Your task to perform on an android device: toggle sleep mode Image 0: 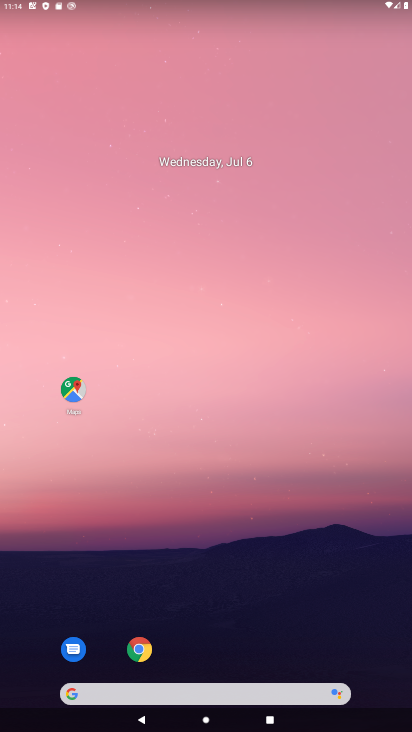
Step 0: drag from (373, 658) to (220, 9)
Your task to perform on an android device: toggle sleep mode Image 1: 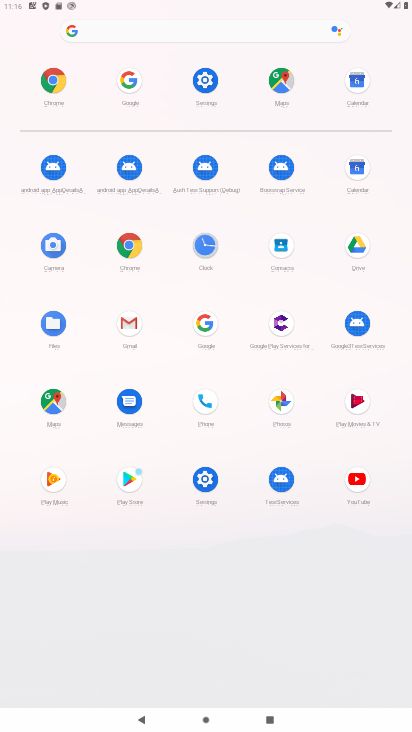
Step 1: click (207, 81)
Your task to perform on an android device: toggle sleep mode Image 2: 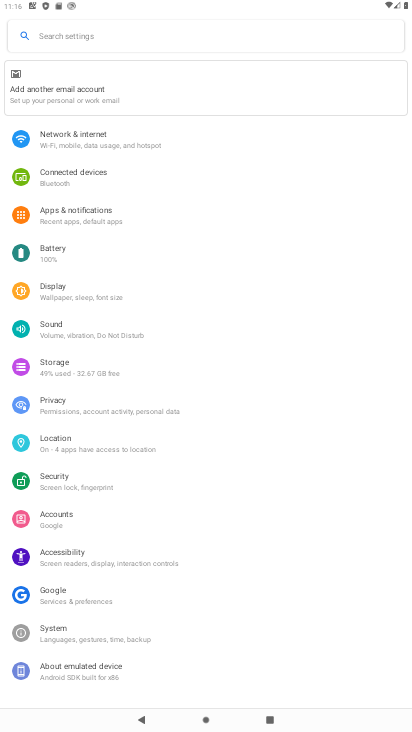
Step 2: task complete